Your task to perform on an android device: install app "Contacts" Image 0: 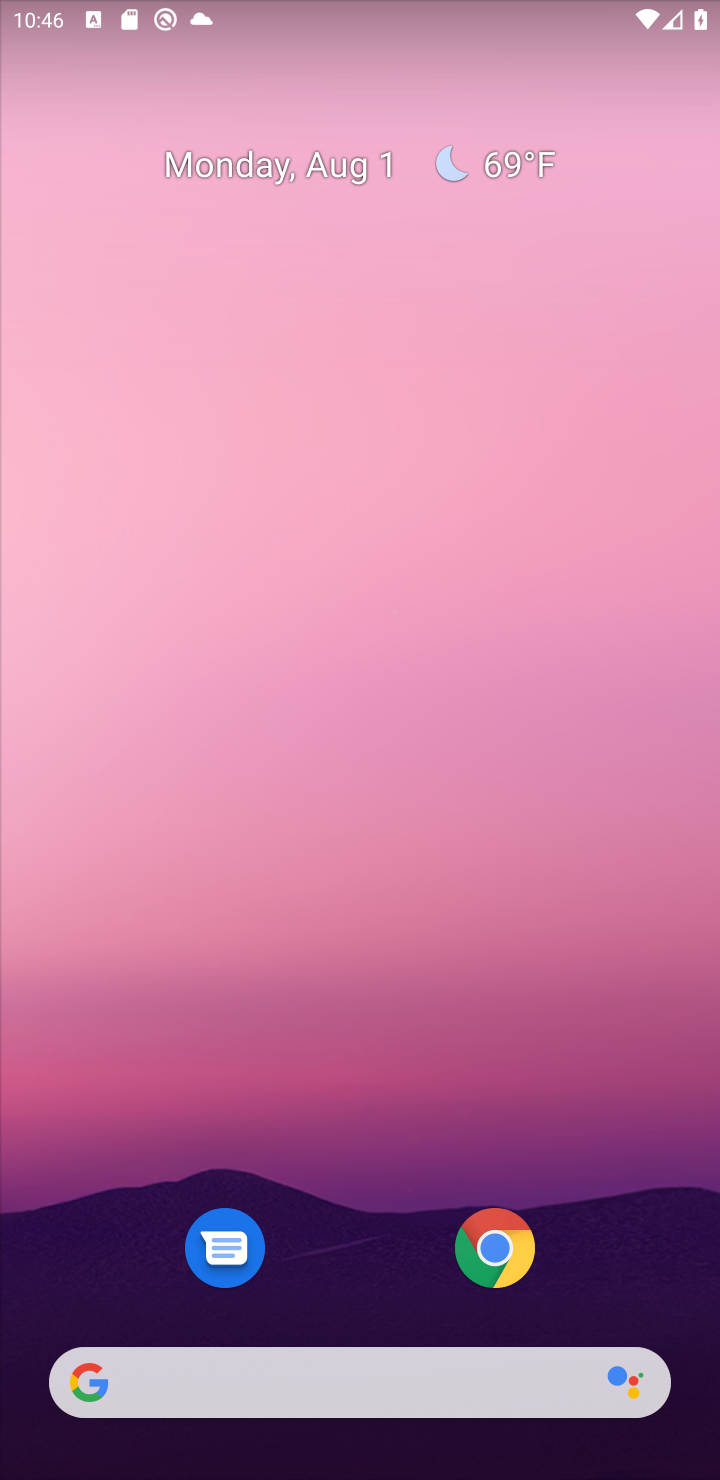
Step 0: drag from (636, 1065) to (637, 153)
Your task to perform on an android device: install app "Contacts" Image 1: 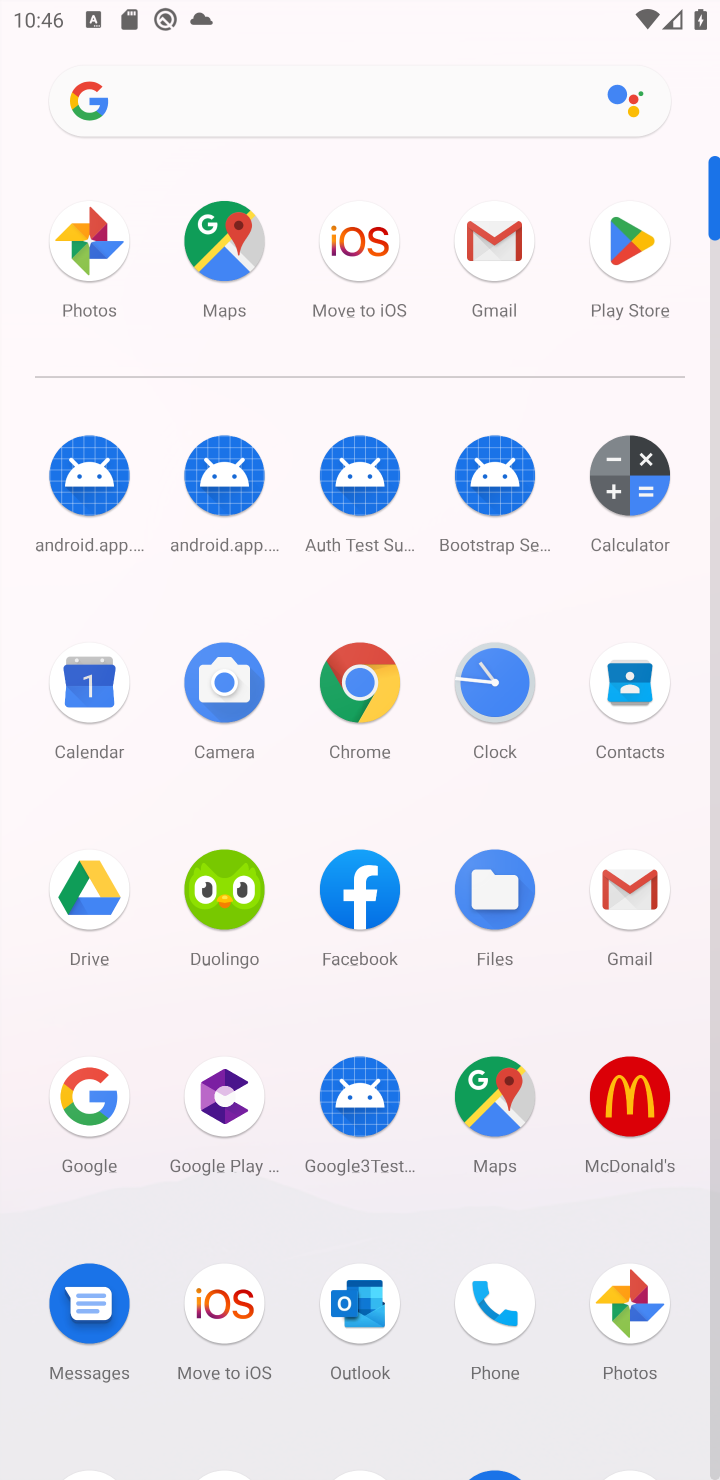
Step 1: click (648, 221)
Your task to perform on an android device: install app "Contacts" Image 2: 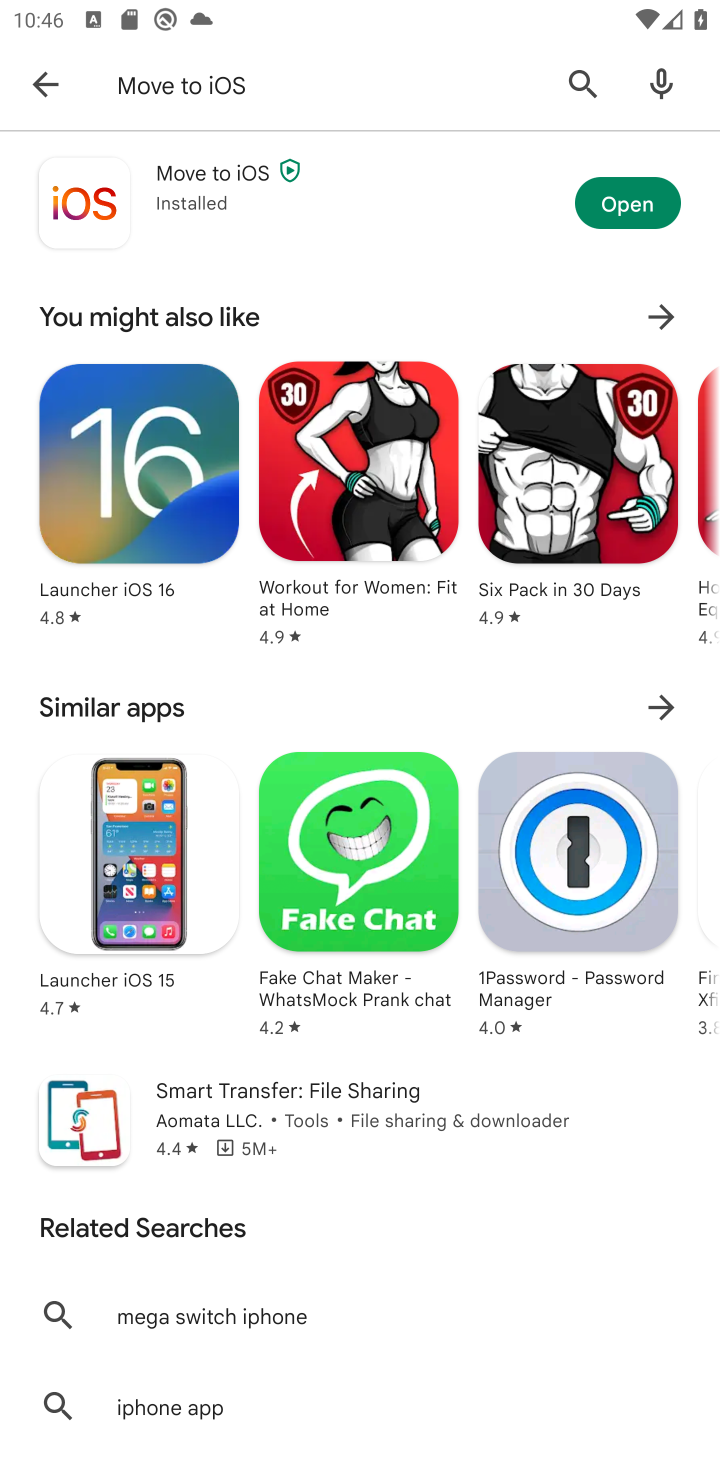
Step 2: click (365, 98)
Your task to perform on an android device: install app "Contacts" Image 3: 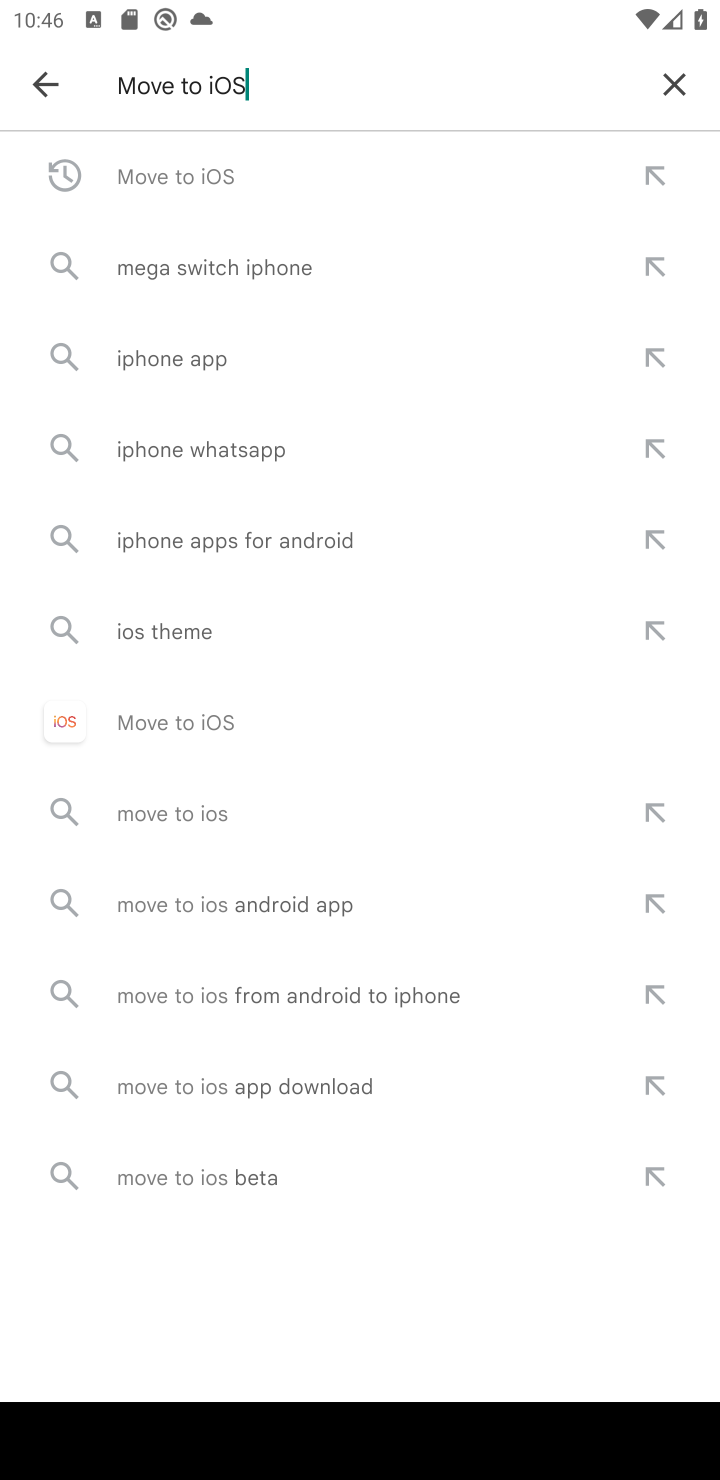
Step 3: click (668, 82)
Your task to perform on an android device: install app "Contacts" Image 4: 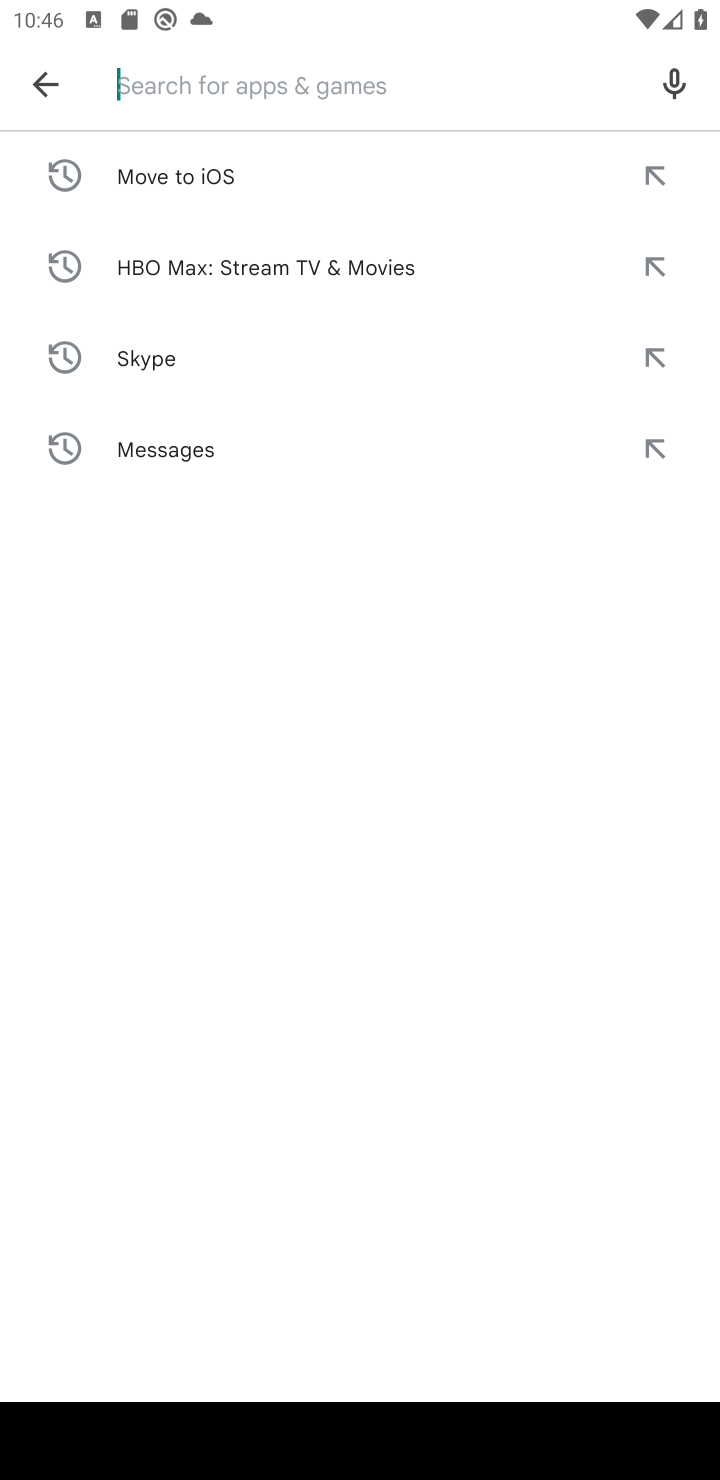
Step 4: type "Contacts"
Your task to perform on an android device: install app "Contacts" Image 5: 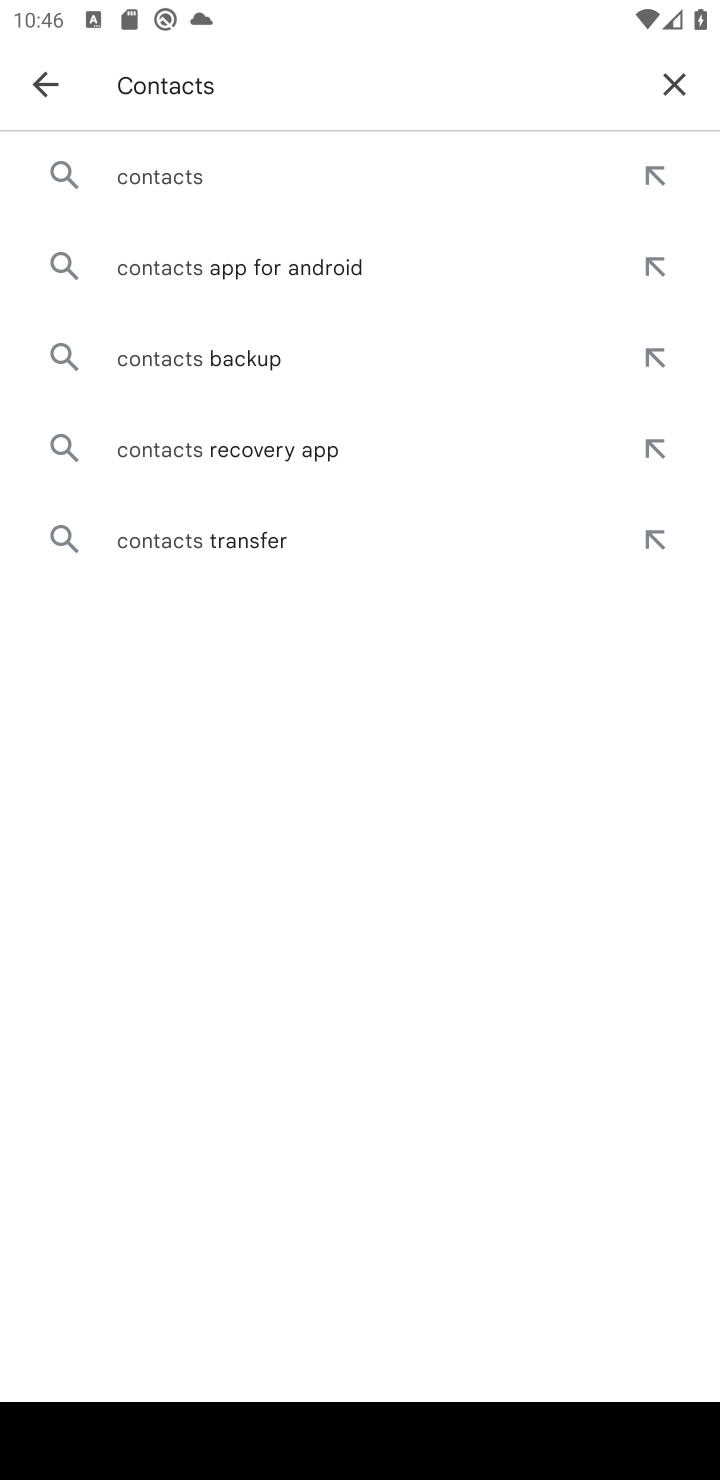
Step 5: press enter
Your task to perform on an android device: install app "Contacts" Image 6: 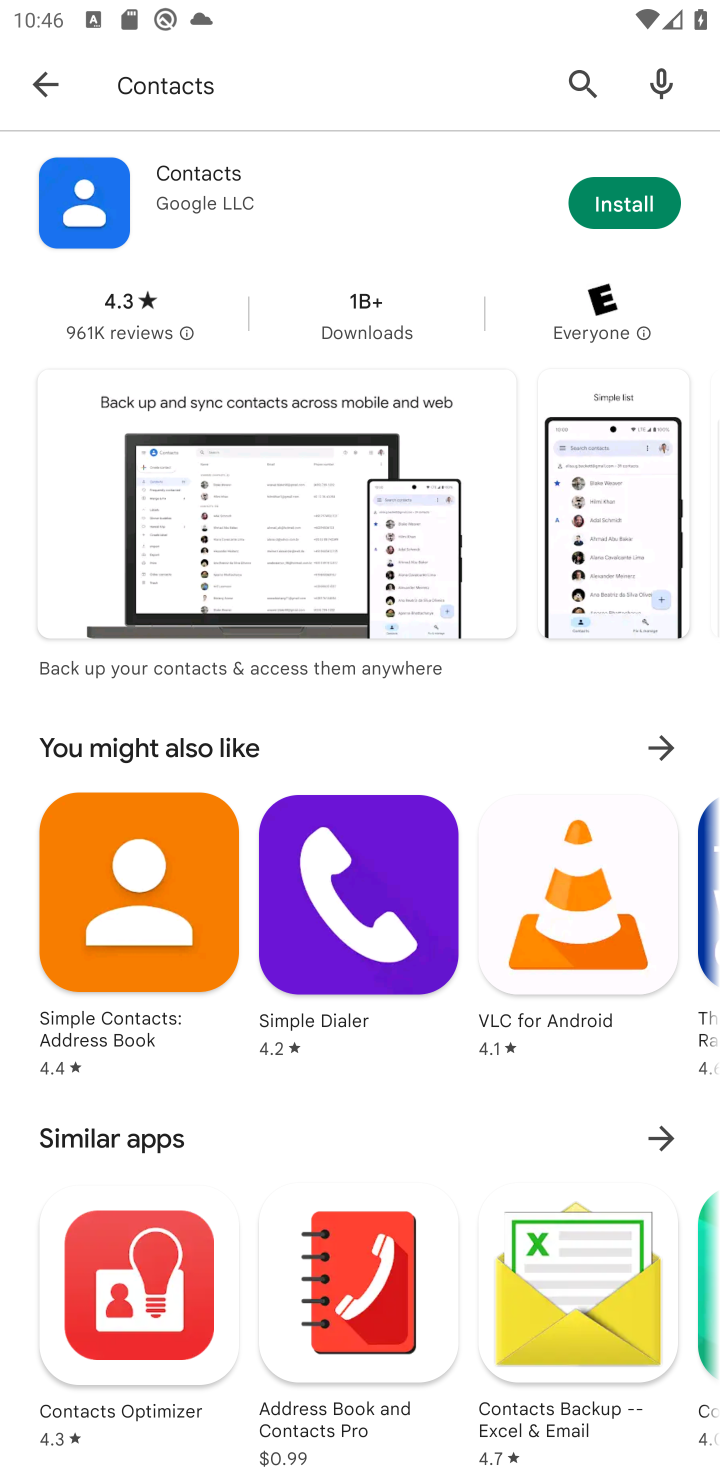
Step 6: click (614, 187)
Your task to perform on an android device: install app "Contacts" Image 7: 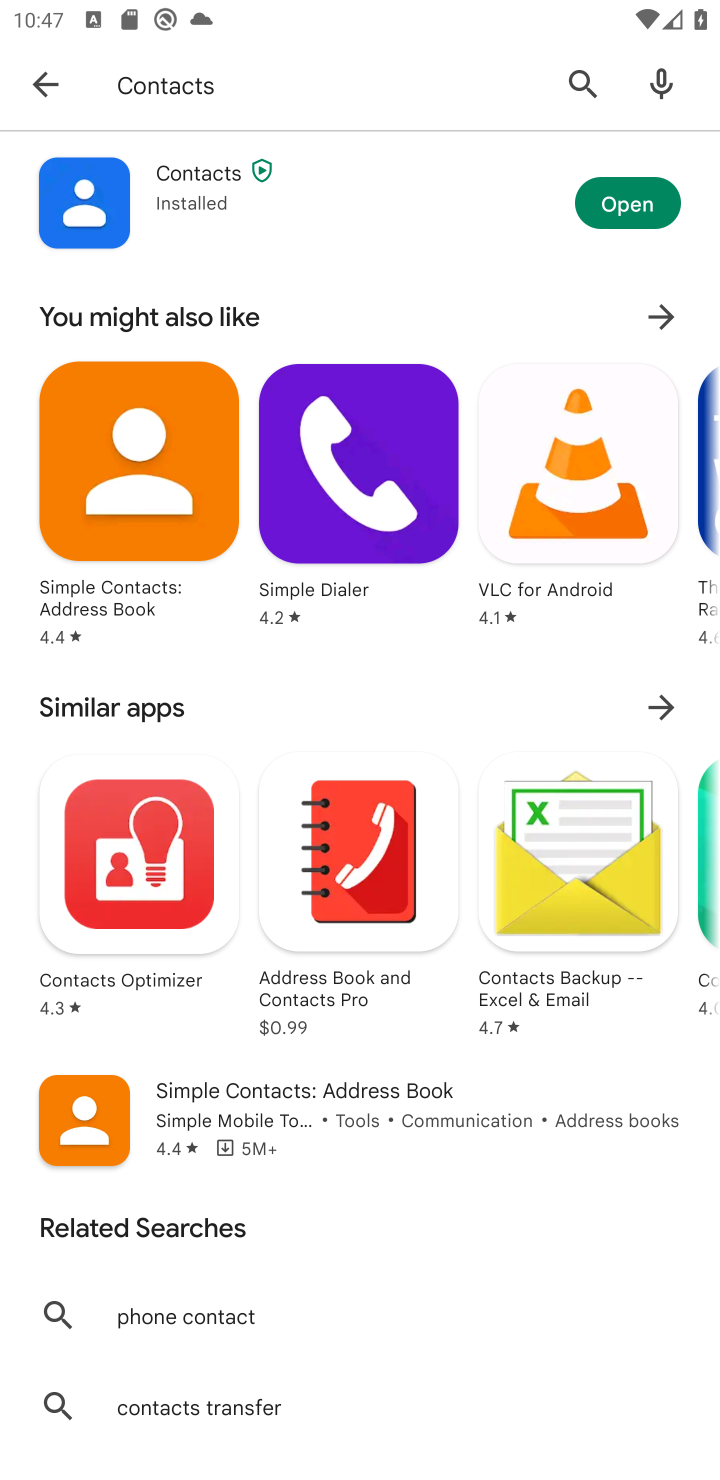
Step 7: click (231, 53)
Your task to perform on an android device: install app "Contacts" Image 8: 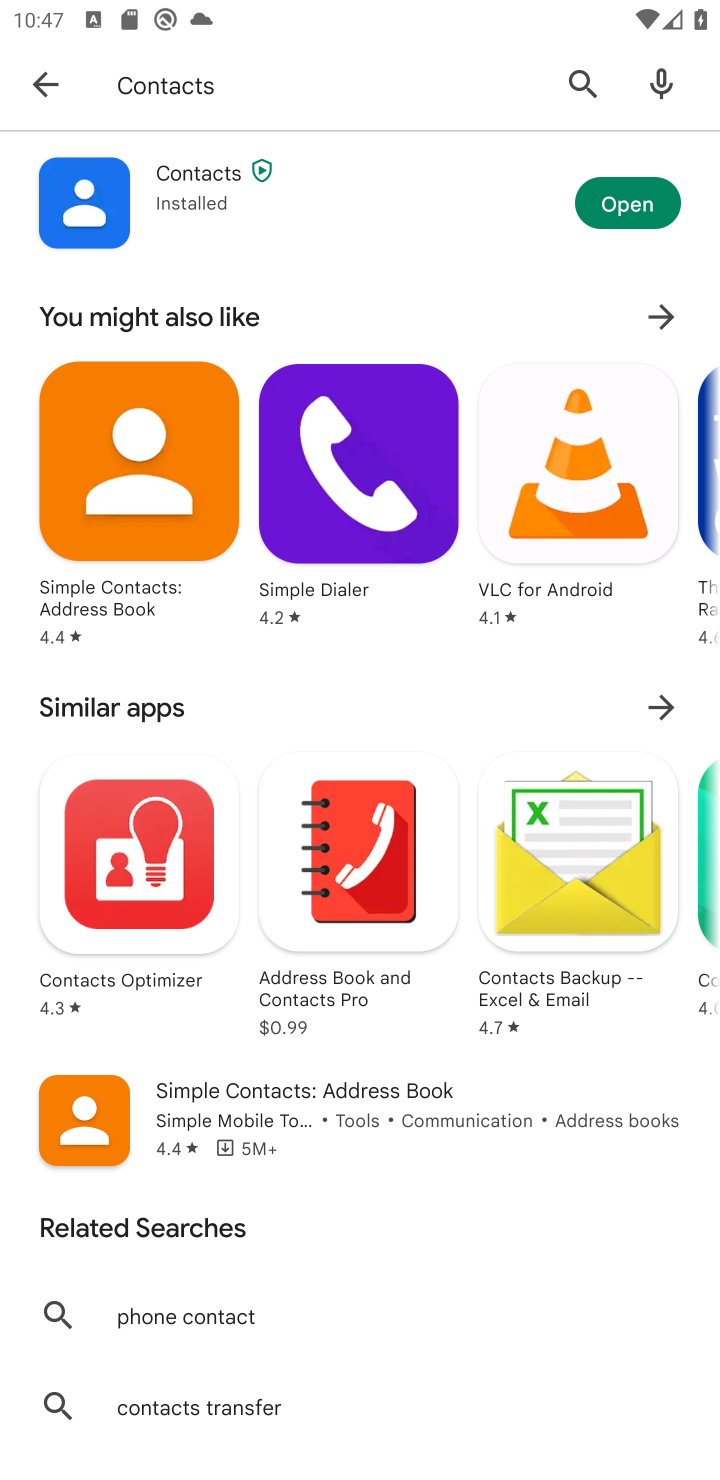
Step 8: click (261, 93)
Your task to perform on an android device: install app "Contacts" Image 9: 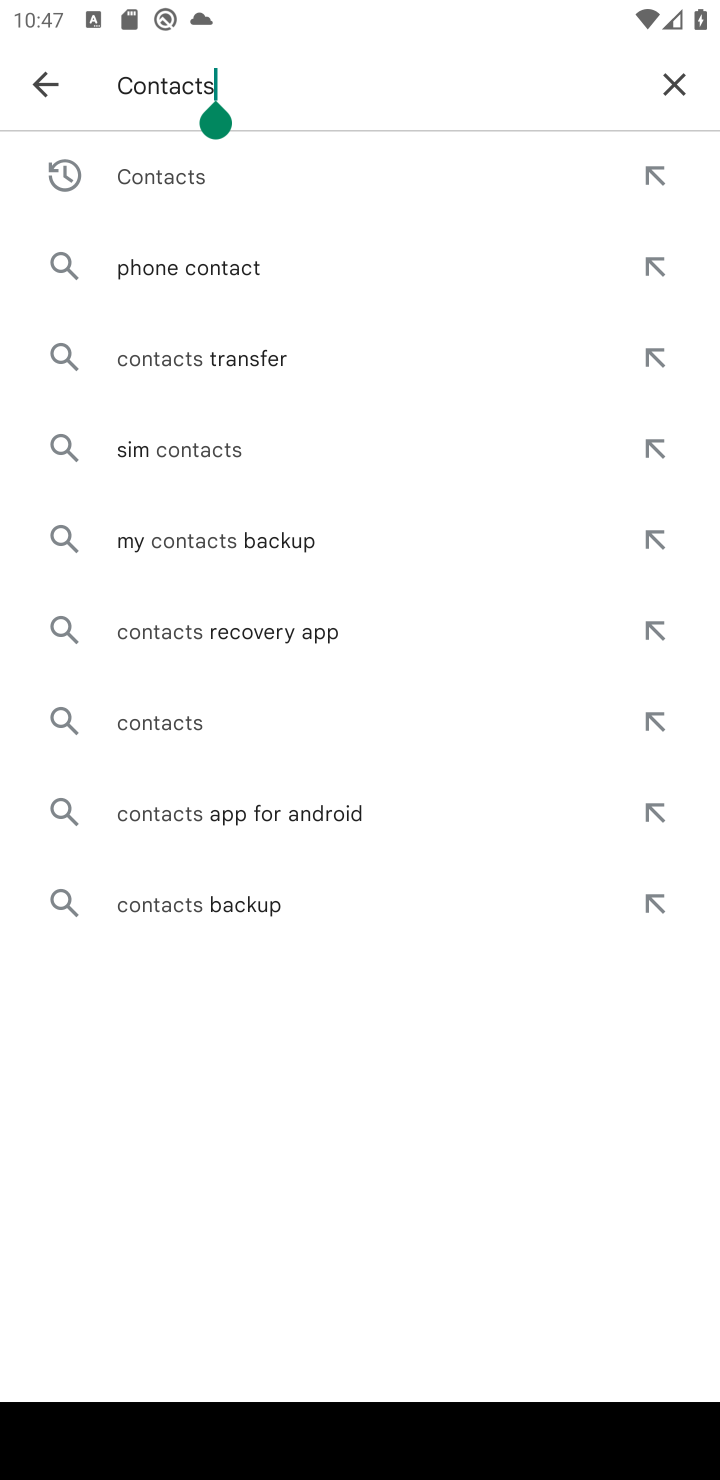
Step 9: click (223, 164)
Your task to perform on an android device: install app "Contacts" Image 10: 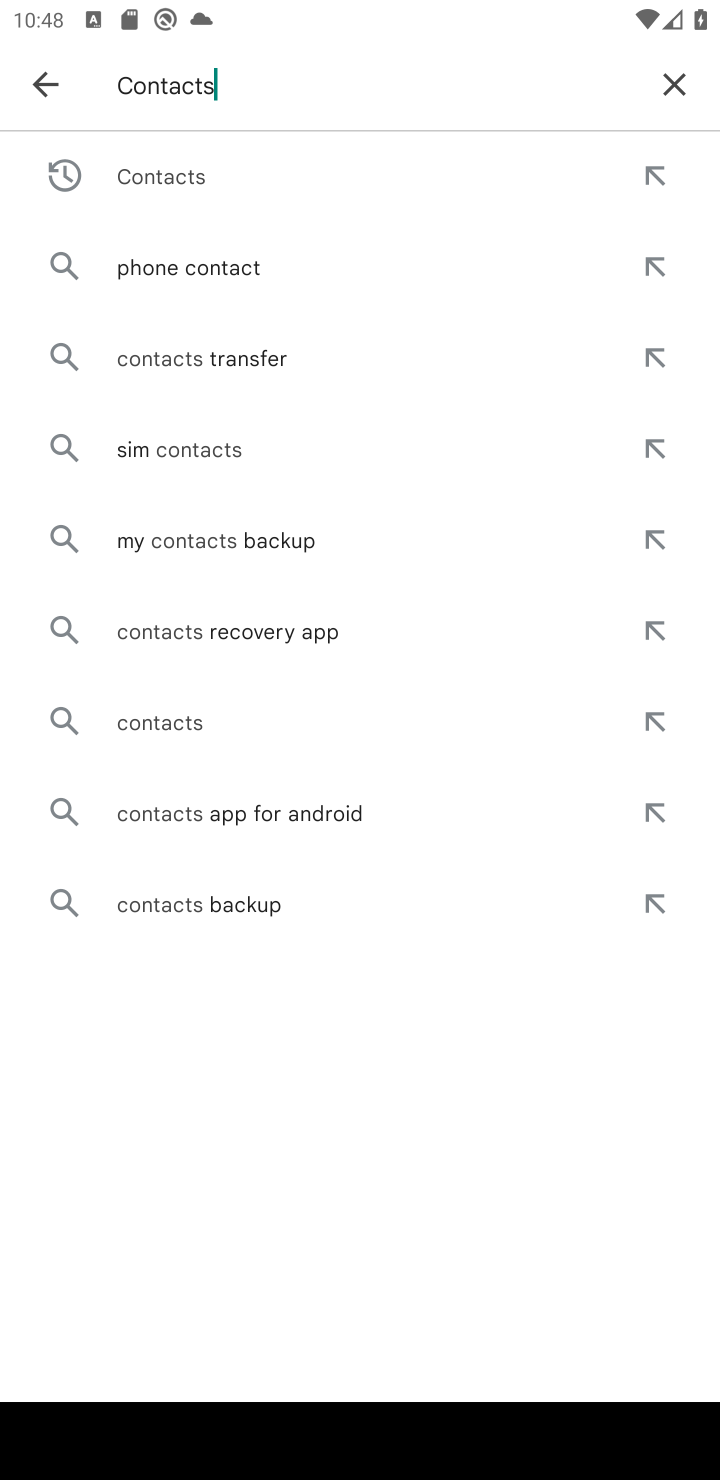
Step 10: press enter
Your task to perform on an android device: install app "Contacts" Image 11: 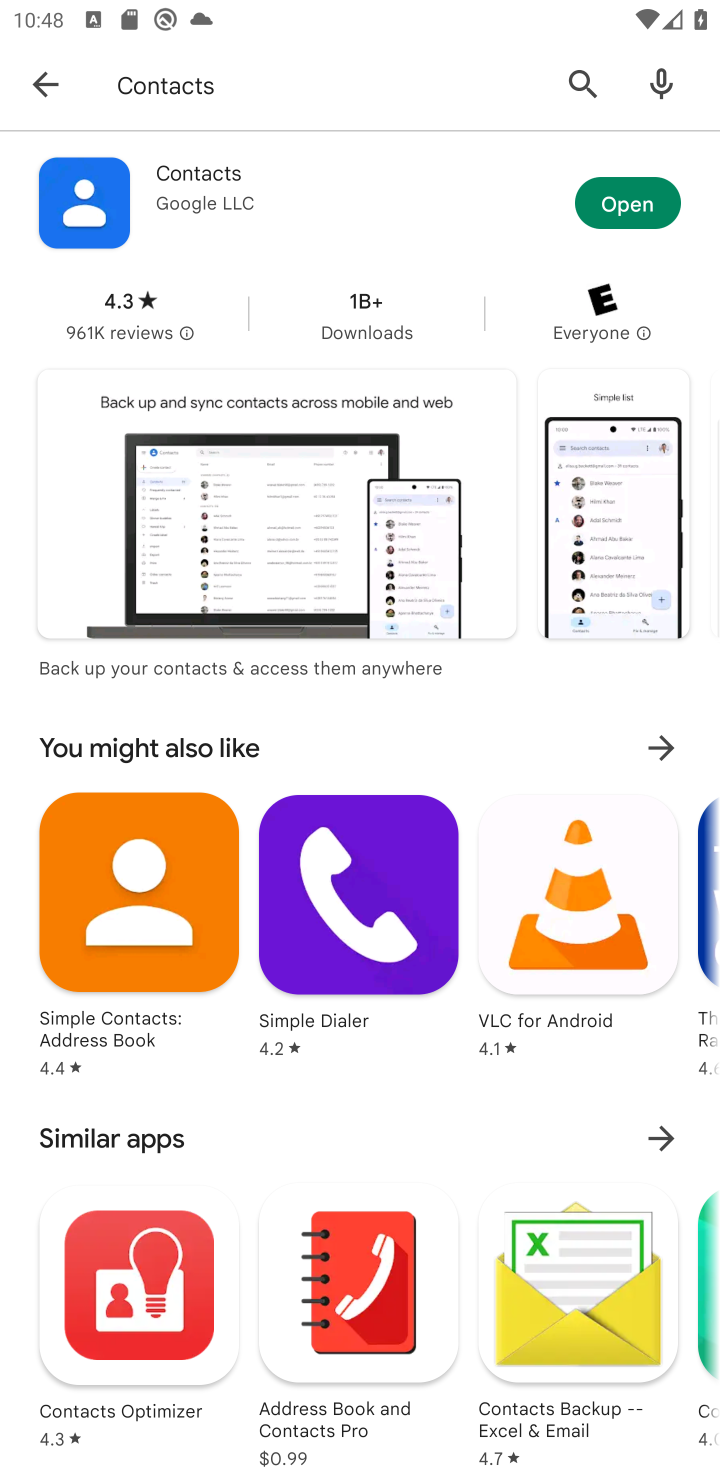
Step 11: task complete